Your task to perform on an android device: Open the web browser Image 0: 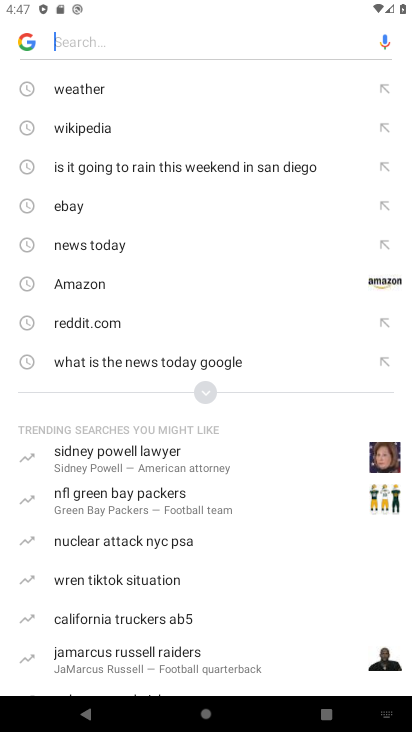
Step 0: press home button
Your task to perform on an android device: Open the web browser Image 1: 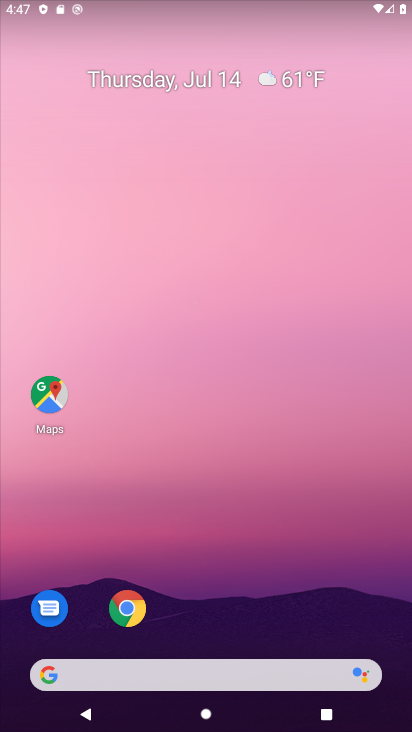
Step 1: drag from (240, 610) to (178, 1)
Your task to perform on an android device: Open the web browser Image 2: 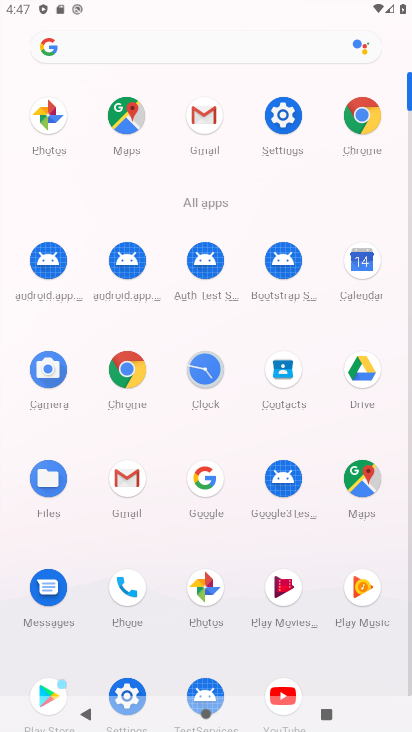
Step 2: click (365, 111)
Your task to perform on an android device: Open the web browser Image 3: 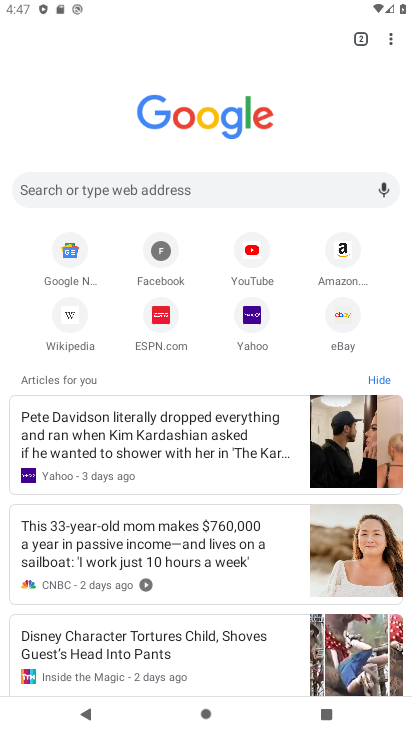
Step 3: task complete